Your task to perform on an android device: read, delete, or share a saved page in the chrome app Image 0: 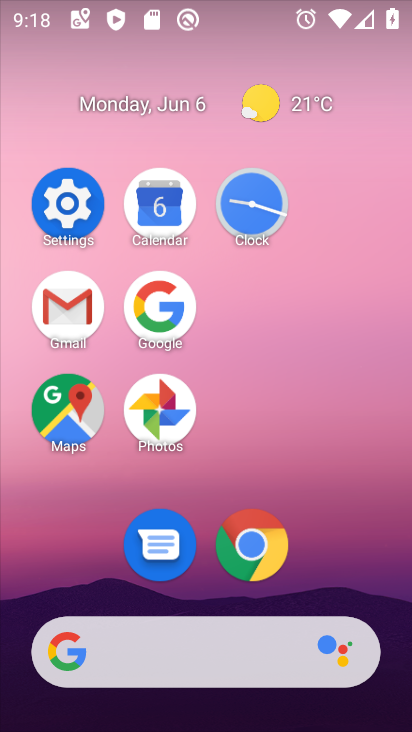
Step 0: click (253, 556)
Your task to perform on an android device: read, delete, or share a saved page in the chrome app Image 1: 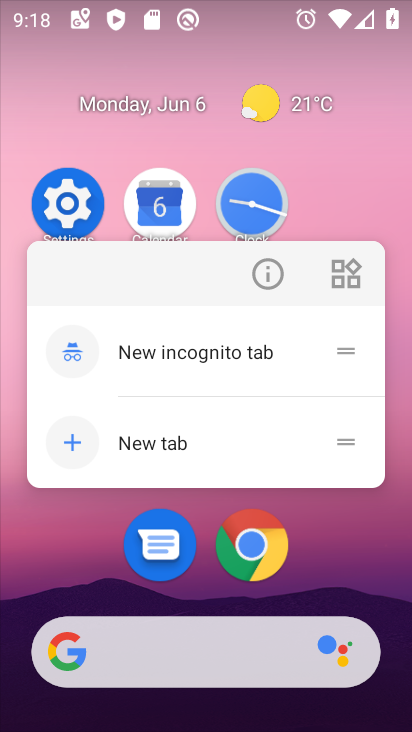
Step 1: click (252, 554)
Your task to perform on an android device: read, delete, or share a saved page in the chrome app Image 2: 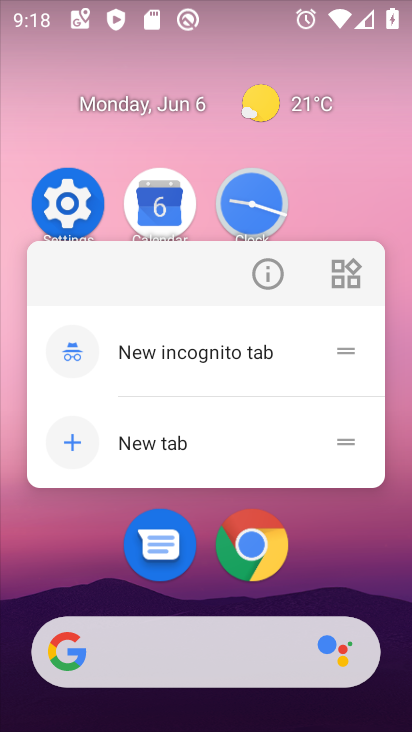
Step 2: click (251, 553)
Your task to perform on an android device: read, delete, or share a saved page in the chrome app Image 3: 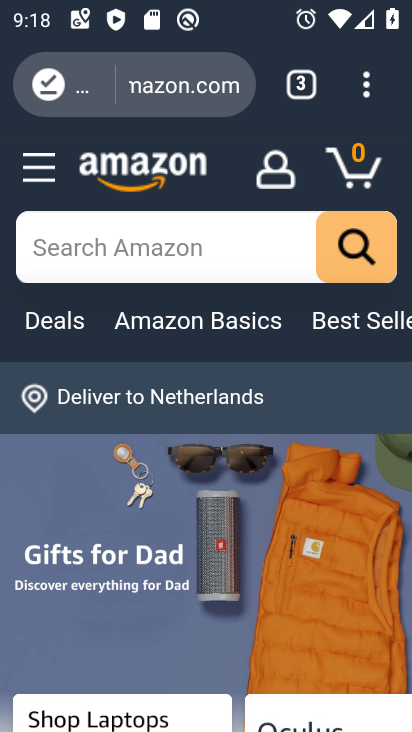
Step 3: click (369, 77)
Your task to perform on an android device: read, delete, or share a saved page in the chrome app Image 4: 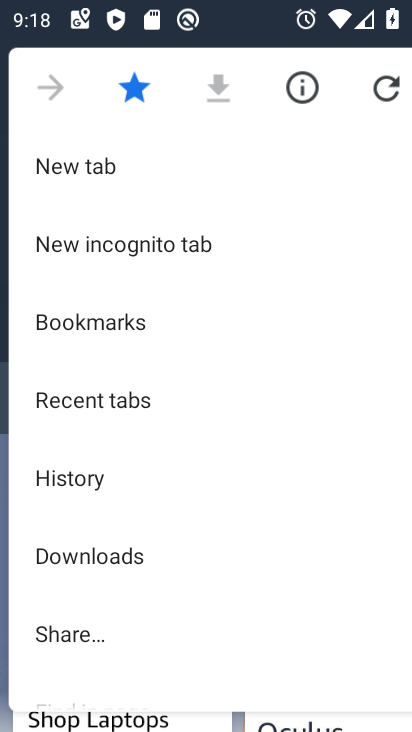
Step 4: click (110, 559)
Your task to perform on an android device: read, delete, or share a saved page in the chrome app Image 5: 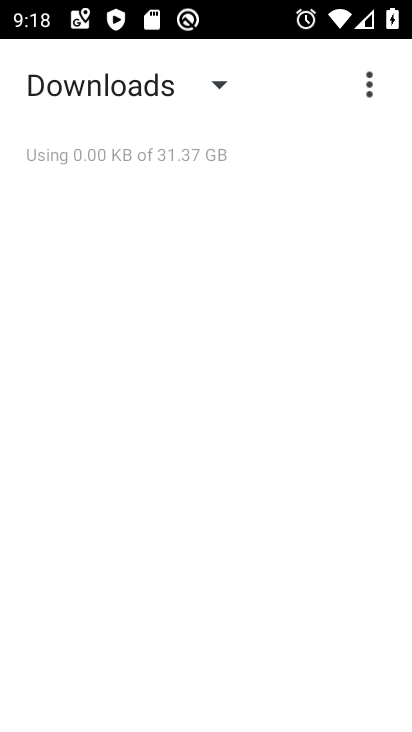
Step 5: task complete